Your task to perform on an android device: Check the news Image 0: 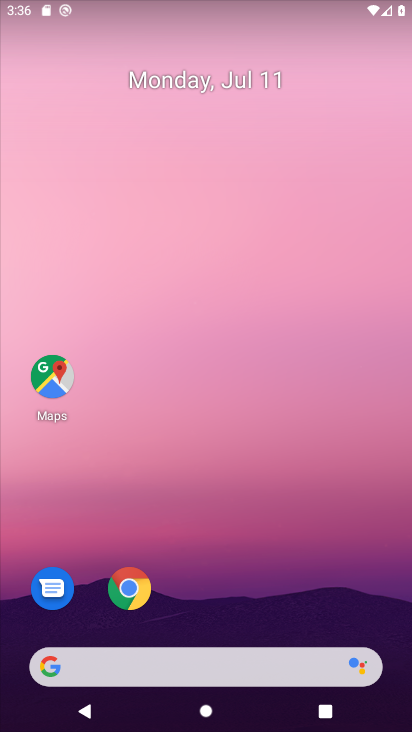
Step 0: drag from (224, 617) to (196, 45)
Your task to perform on an android device: Check the news Image 1: 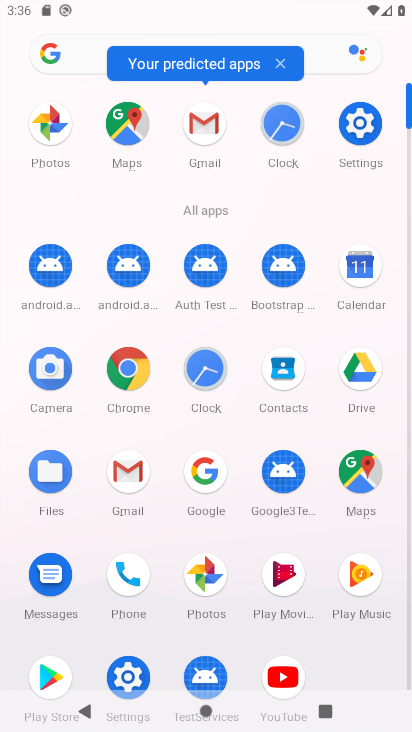
Step 1: click (203, 472)
Your task to perform on an android device: Check the news Image 2: 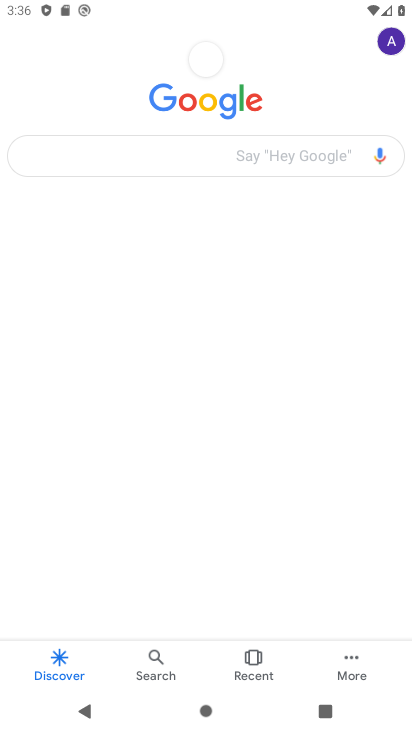
Step 2: click (228, 157)
Your task to perform on an android device: Check the news Image 3: 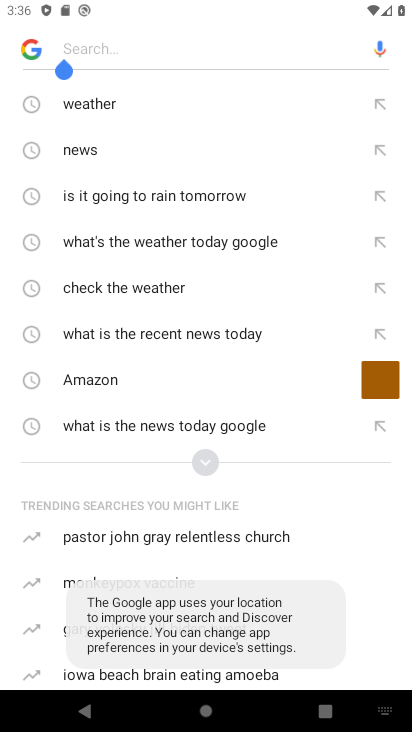
Step 3: click (96, 151)
Your task to perform on an android device: Check the news Image 4: 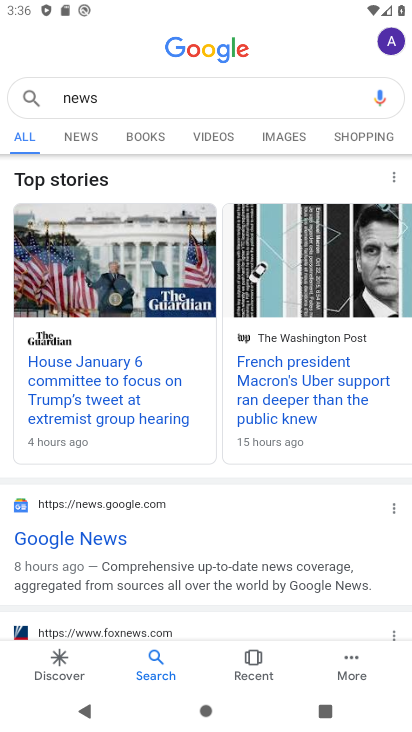
Step 4: click (94, 374)
Your task to perform on an android device: Check the news Image 5: 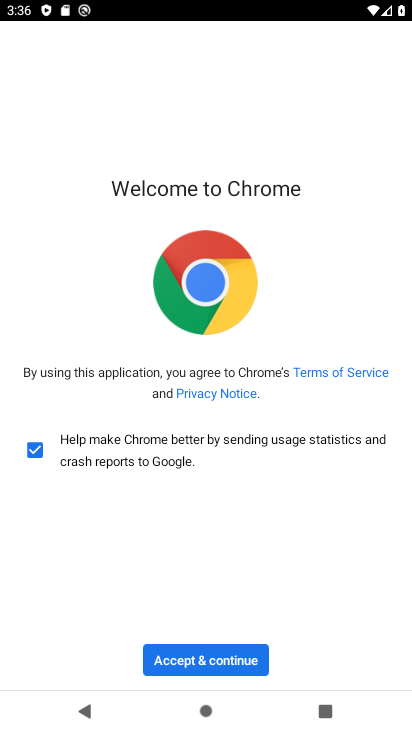
Step 5: click (213, 662)
Your task to perform on an android device: Check the news Image 6: 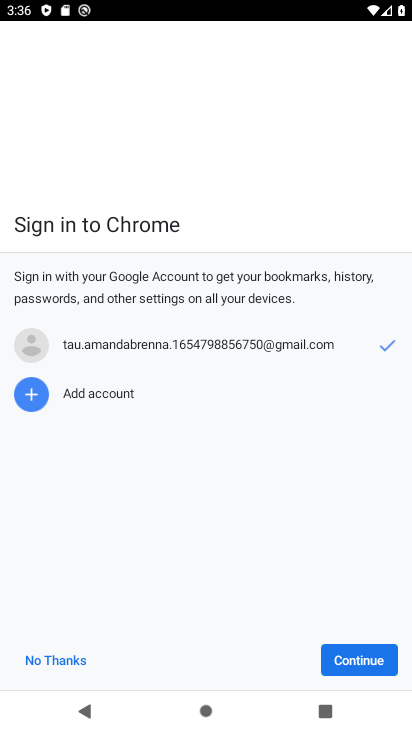
Step 6: click (341, 660)
Your task to perform on an android device: Check the news Image 7: 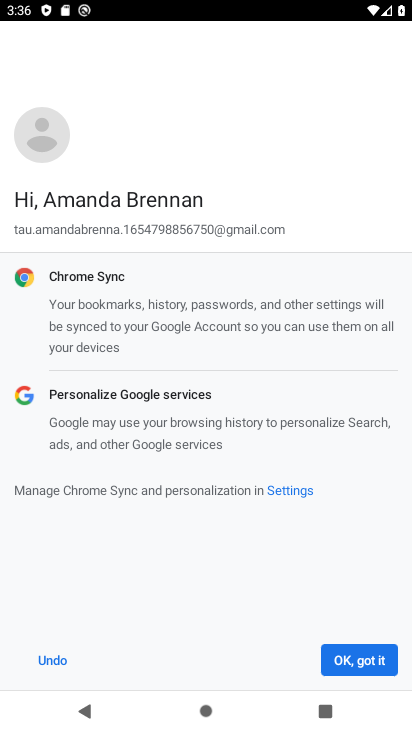
Step 7: click (341, 660)
Your task to perform on an android device: Check the news Image 8: 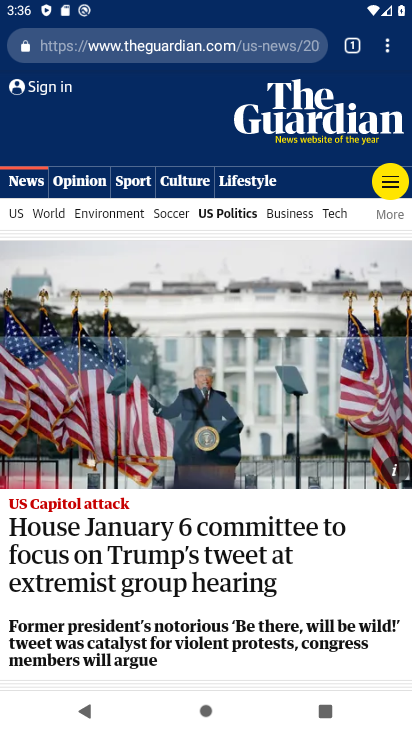
Step 8: task complete